Your task to perform on an android device: Go to Google maps Image 0: 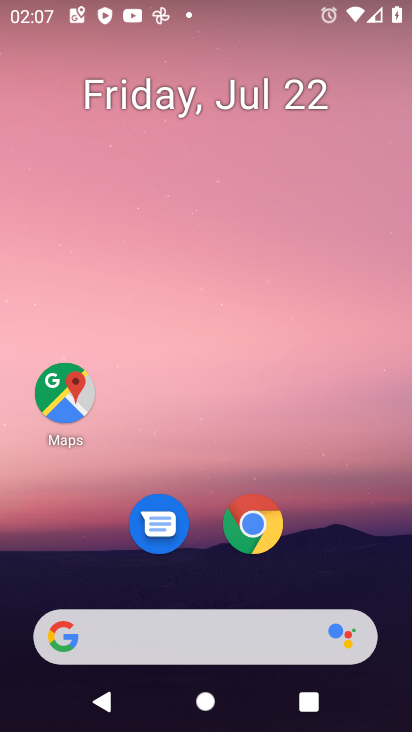
Step 0: click (58, 406)
Your task to perform on an android device: Go to Google maps Image 1: 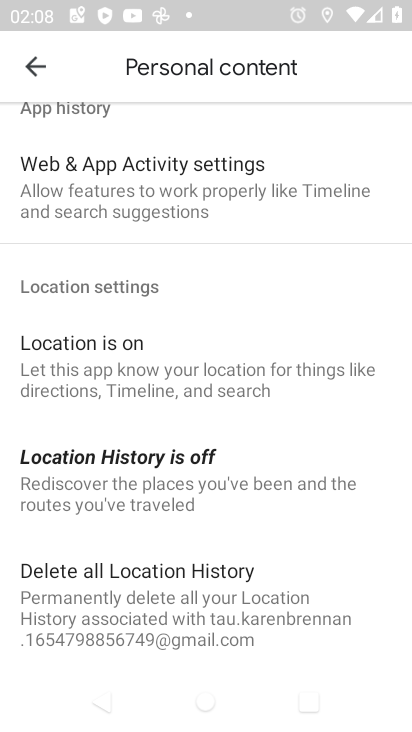
Step 1: click (34, 65)
Your task to perform on an android device: Go to Google maps Image 2: 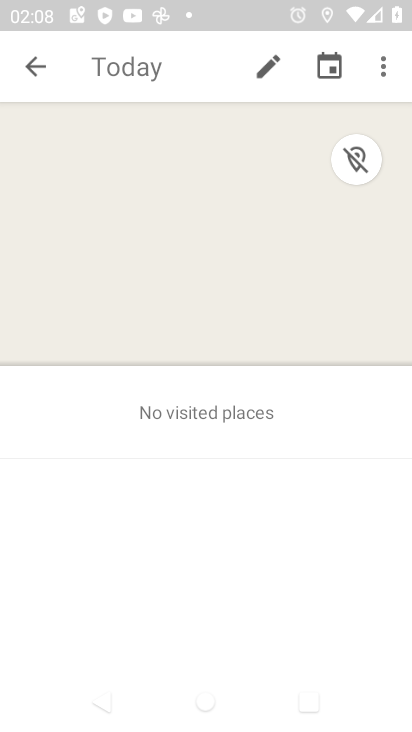
Step 2: click (34, 68)
Your task to perform on an android device: Go to Google maps Image 3: 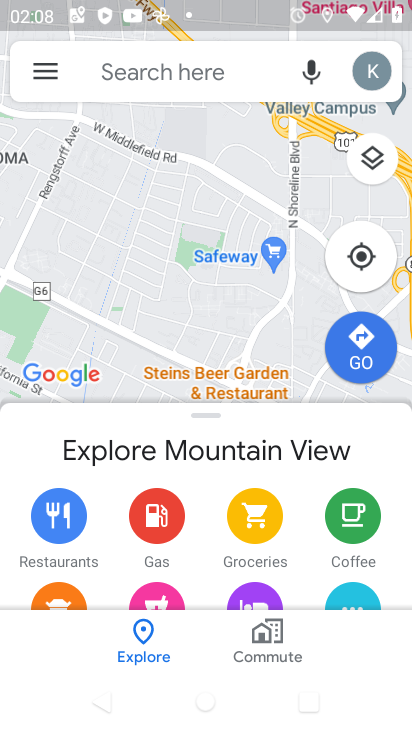
Step 3: task complete